Your task to perform on an android device: When is my next meeting? Image 0: 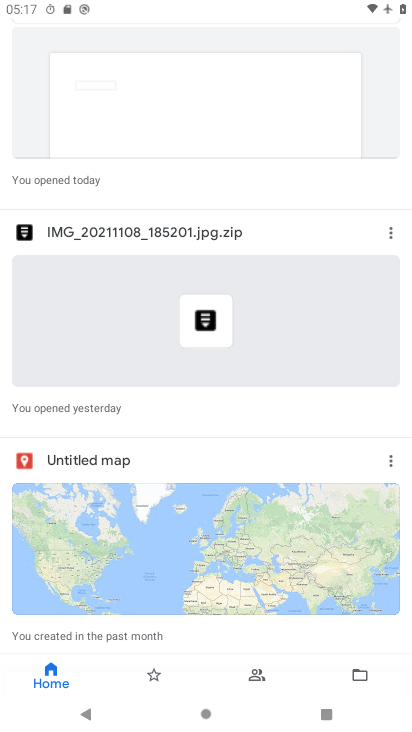
Step 0: press home button
Your task to perform on an android device: When is my next meeting? Image 1: 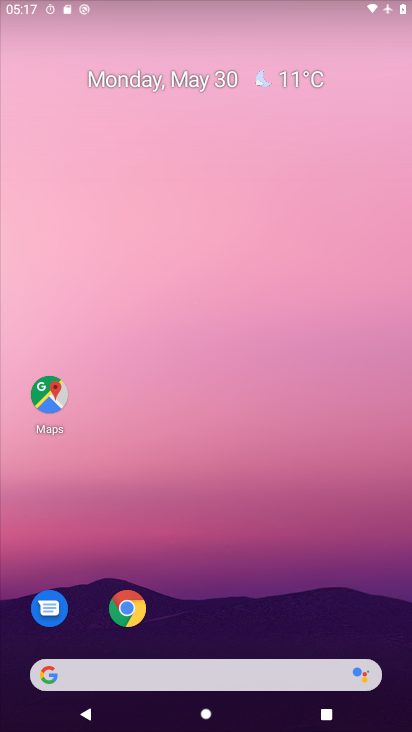
Step 1: drag from (291, 592) to (202, 1)
Your task to perform on an android device: When is my next meeting? Image 2: 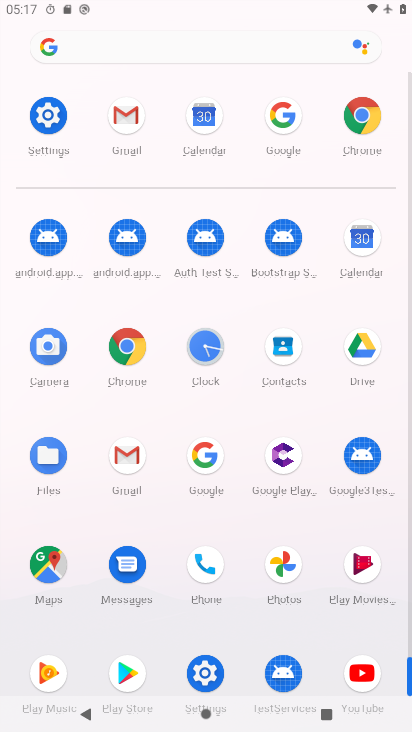
Step 2: click (207, 123)
Your task to perform on an android device: When is my next meeting? Image 3: 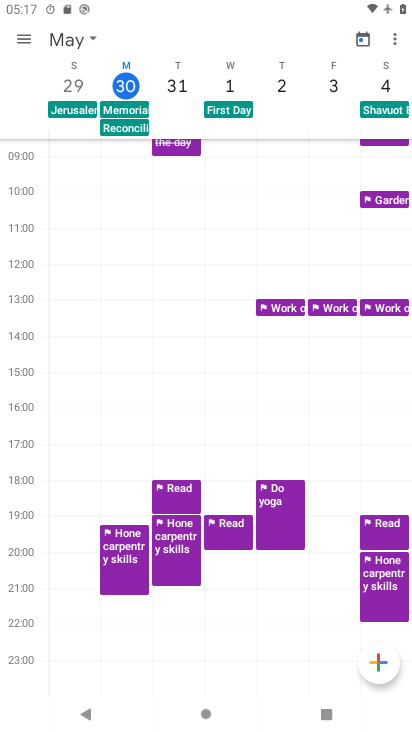
Step 3: task complete